Your task to perform on an android device: turn notification dots on Image 0: 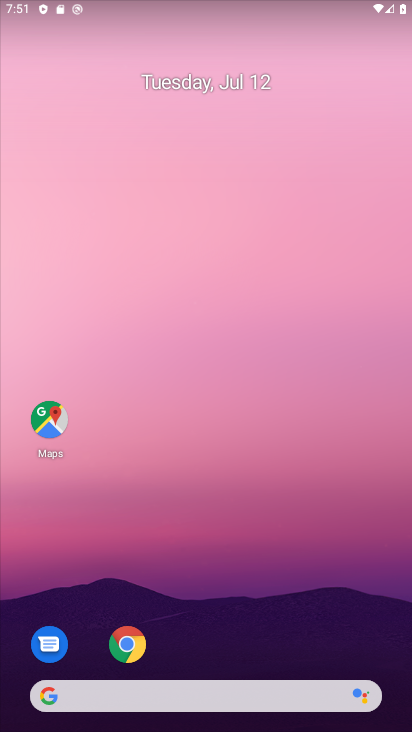
Step 0: press home button
Your task to perform on an android device: turn notification dots on Image 1: 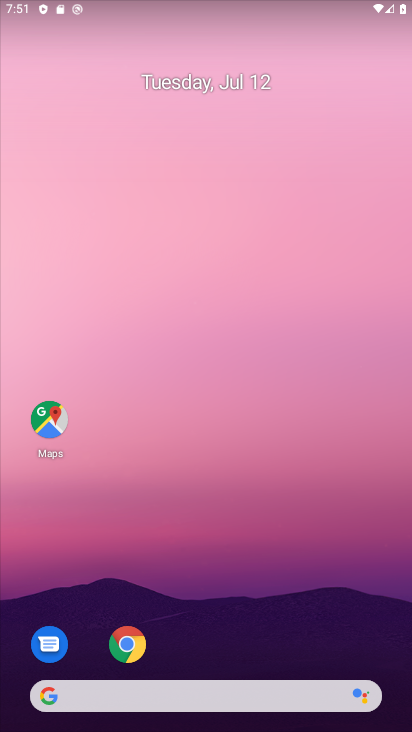
Step 1: drag from (230, 656) to (250, 166)
Your task to perform on an android device: turn notification dots on Image 2: 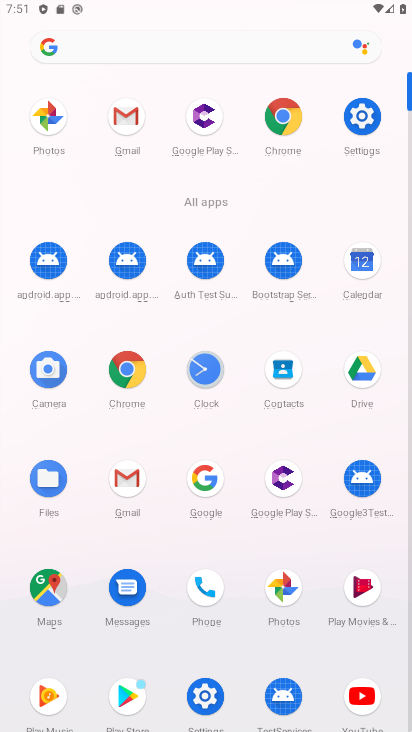
Step 2: click (360, 114)
Your task to perform on an android device: turn notification dots on Image 3: 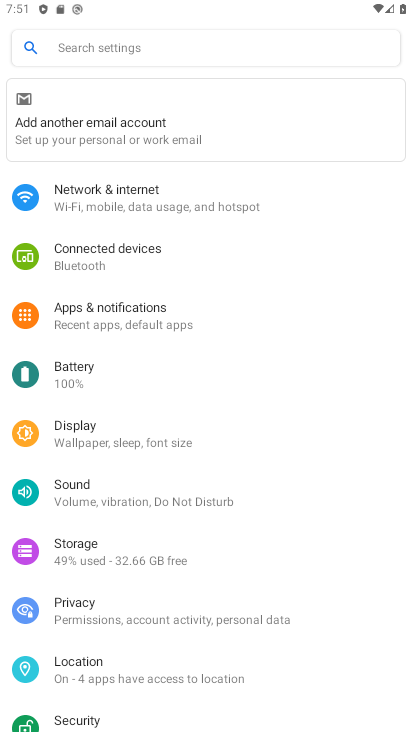
Step 3: click (135, 306)
Your task to perform on an android device: turn notification dots on Image 4: 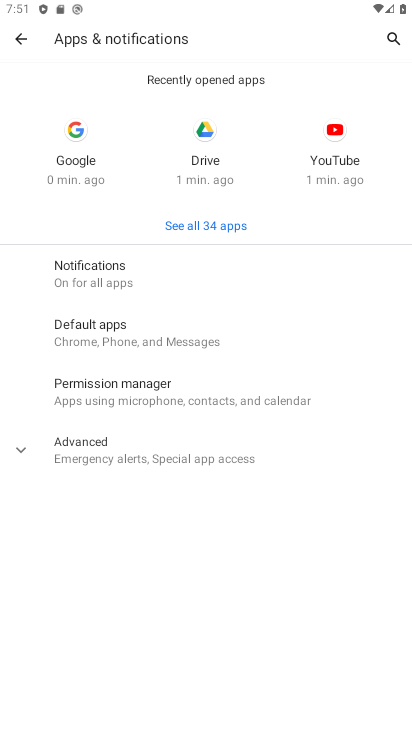
Step 4: click (122, 272)
Your task to perform on an android device: turn notification dots on Image 5: 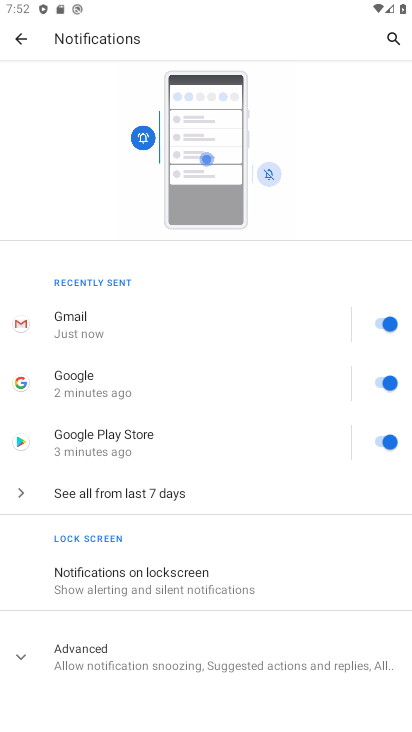
Step 5: click (70, 657)
Your task to perform on an android device: turn notification dots on Image 6: 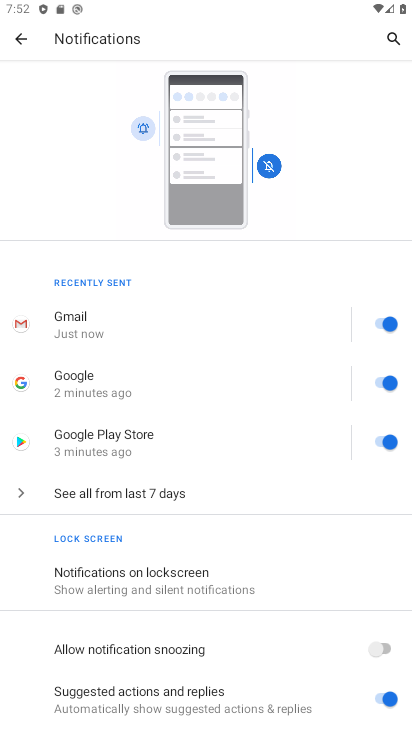
Step 6: task complete